Your task to perform on an android device: see sites visited before in the chrome app Image 0: 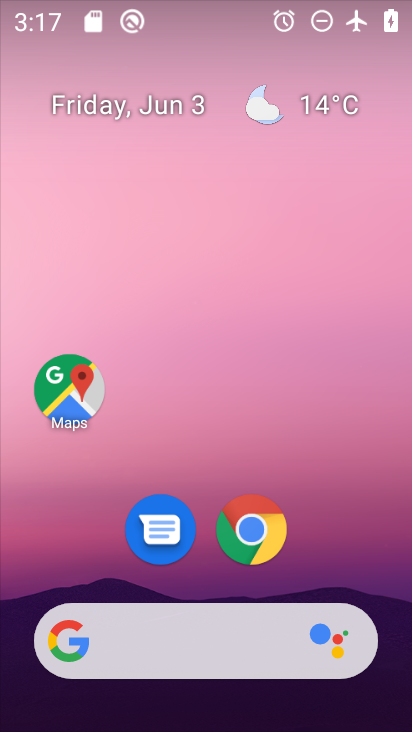
Step 0: drag from (336, 559) to (330, 216)
Your task to perform on an android device: see sites visited before in the chrome app Image 1: 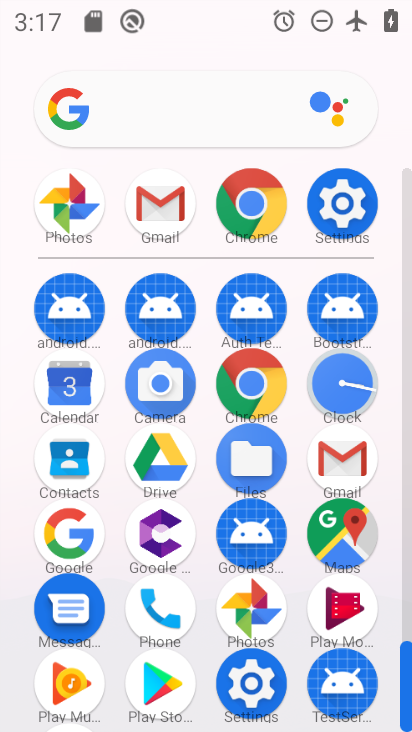
Step 1: click (270, 387)
Your task to perform on an android device: see sites visited before in the chrome app Image 2: 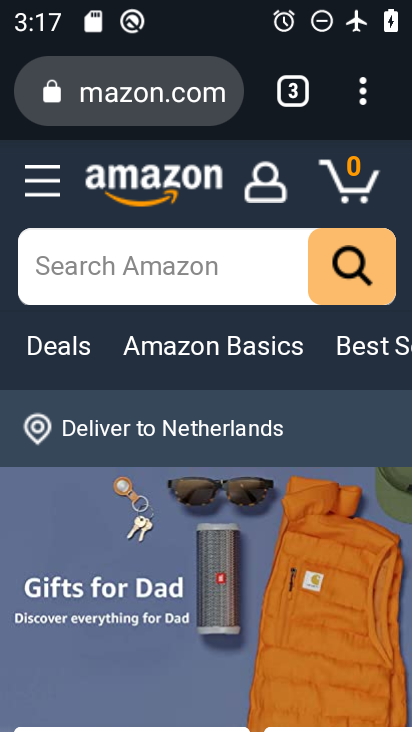
Step 2: click (367, 102)
Your task to perform on an android device: see sites visited before in the chrome app Image 3: 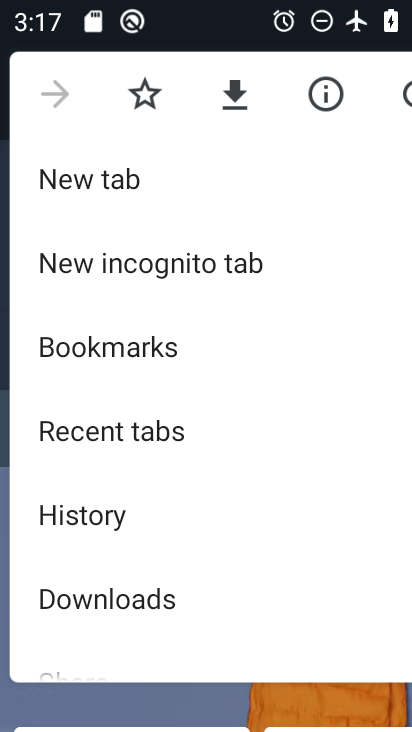
Step 3: drag from (317, 485) to (317, 354)
Your task to perform on an android device: see sites visited before in the chrome app Image 4: 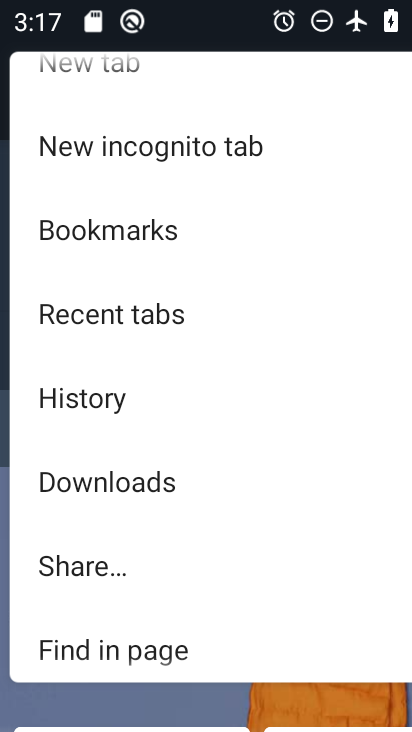
Step 4: drag from (323, 499) to (341, 306)
Your task to perform on an android device: see sites visited before in the chrome app Image 5: 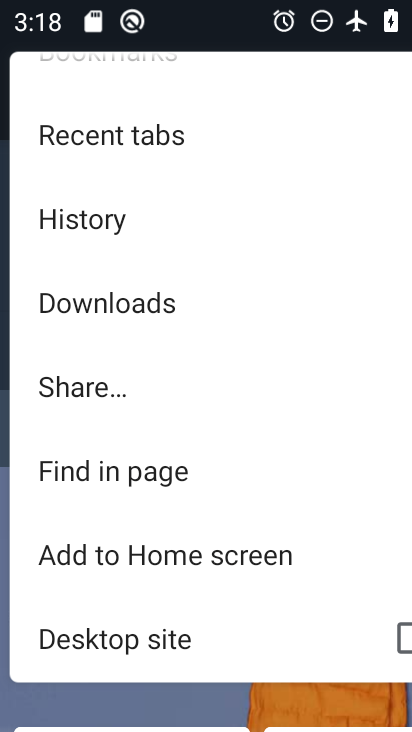
Step 5: drag from (346, 503) to (354, 338)
Your task to perform on an android device: see sites visited before in the chrome app Image 6: 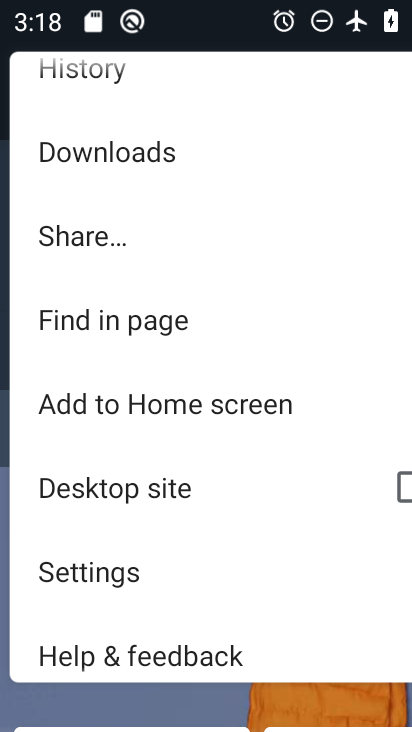
Step 6: drag from (335, 212) to (342, 351)
Your task to perform on an android device: see sites visited before in the chrome app Image 7: 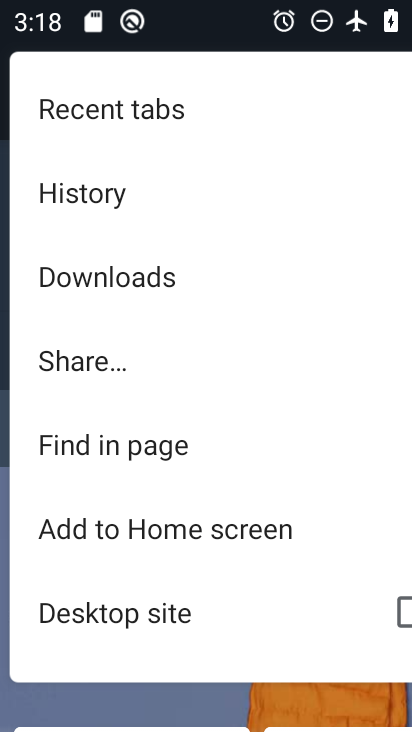
Step 7: click (152, 201)
Your task to perform on an android device: see sites visited before in the chrome app Image 8: 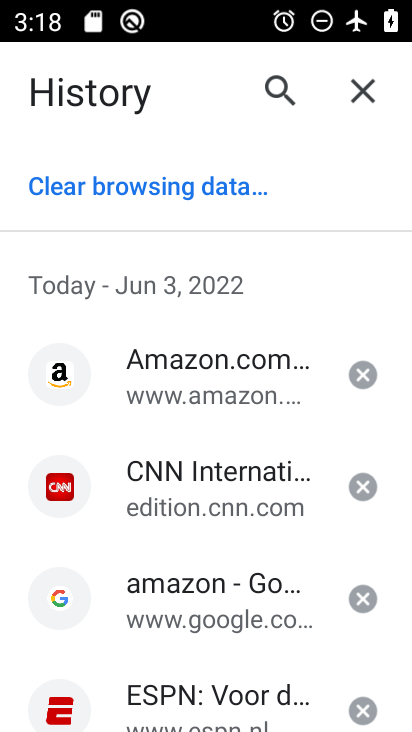
Step 8: task complete